Your task to perform on an android device: Find coffee shops on Maps Image 0: 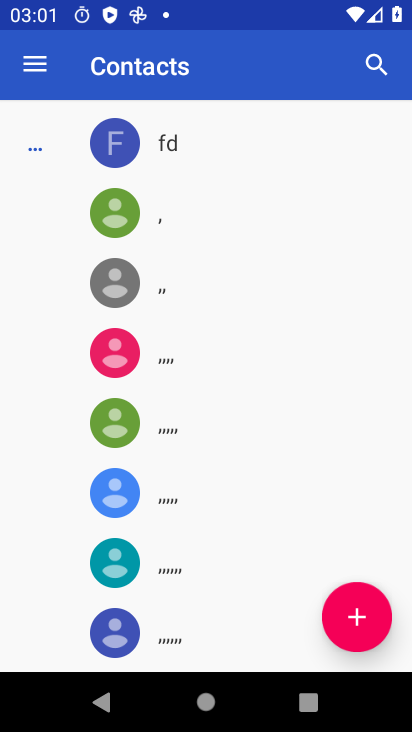
Step 0: press home button
Your task to perform on an android device: Find coffee shops on Maps Image 1: 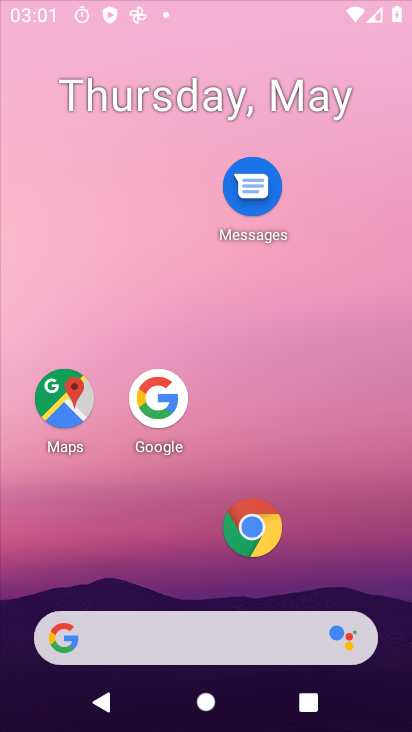
Step 1: drag from (214, 585) to (345, 5)
Your task to perform on an android device: Find coffee shops on Maps Image 2: 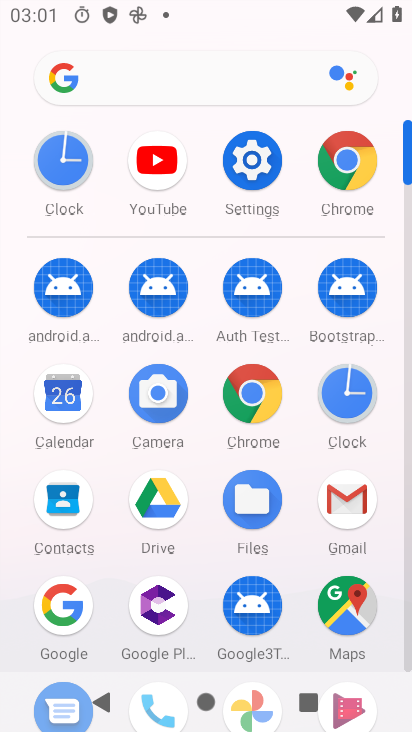
Step 2: click (352, 597)
Your task to perform on an android device: Find coffee shops on Maps Image 3: 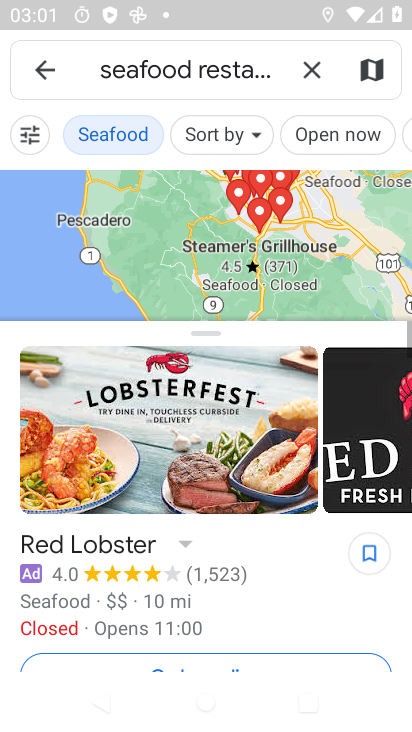
Step 3: click (317, 80)
Your task to perform on an android device: Find coffee shops on Maps Image 4: 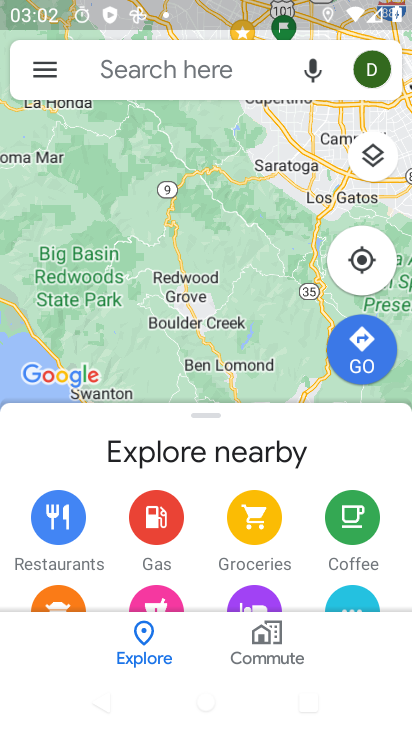
Step 4: click (153, 64)
Your task to perform on an android device: Find coffee shops on Maps Image 5: 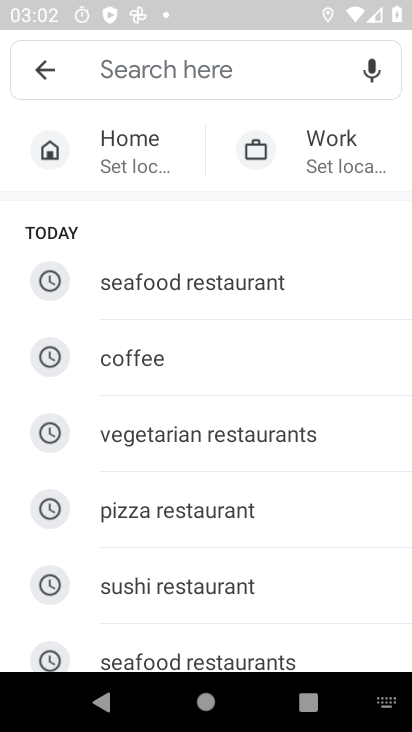
Step 5: click (204, 368)
Your task to perform on an android device: Find coffee shops on Maps Image 6: 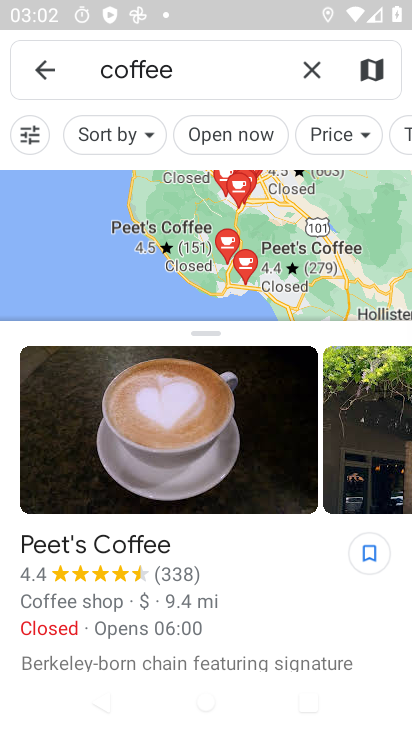
Step 6: task complete